Your task to perform on an android device: see sites visited before in the chrome app Image 0: 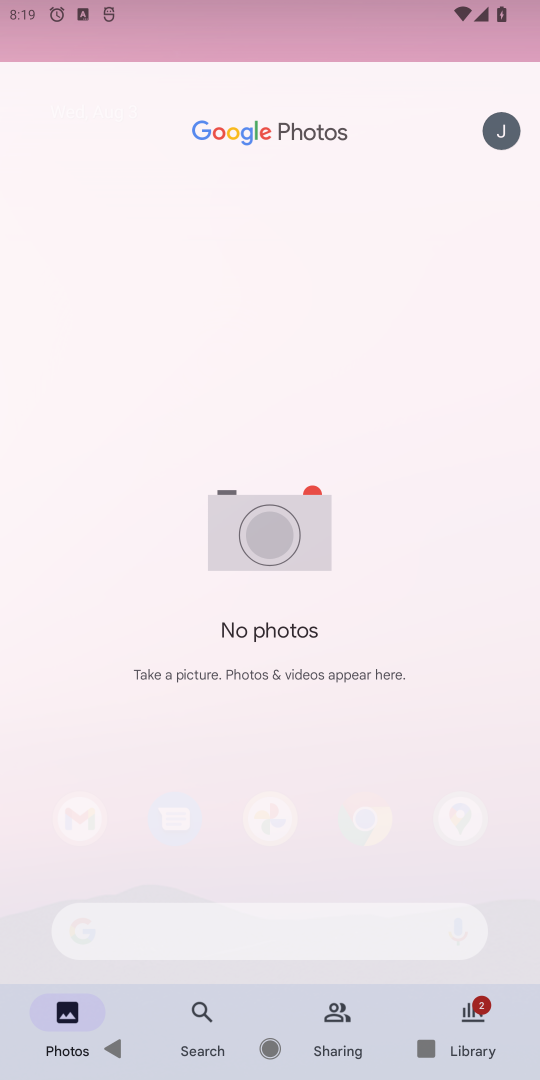
Step 0: press home button
Your task to perform on an android device: see sites visited before in the chrome app Image 1: 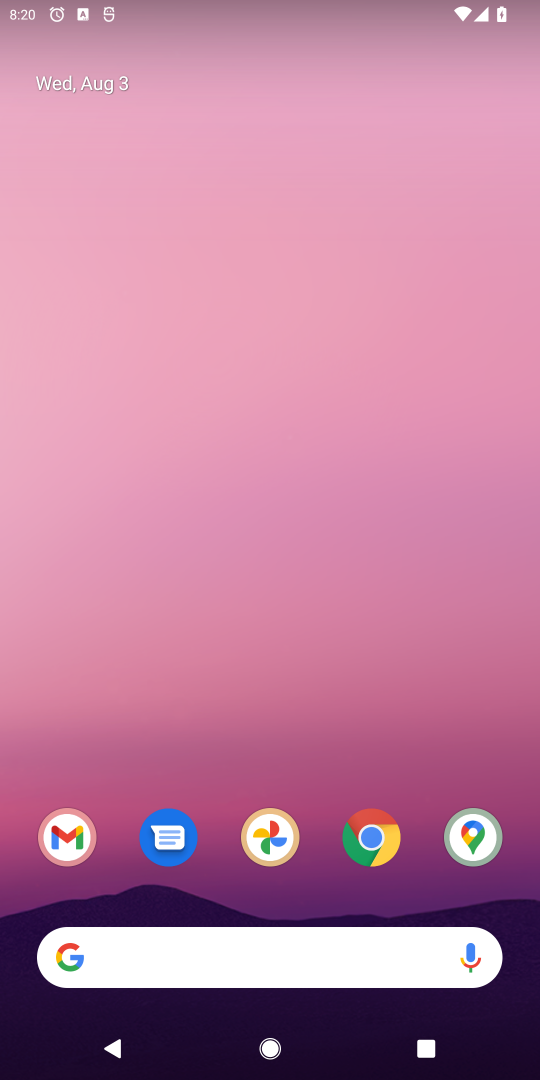
Step 1: click (380, 843)
Your task to perform on an android device: see sites visited before in the chrome app Image 2: 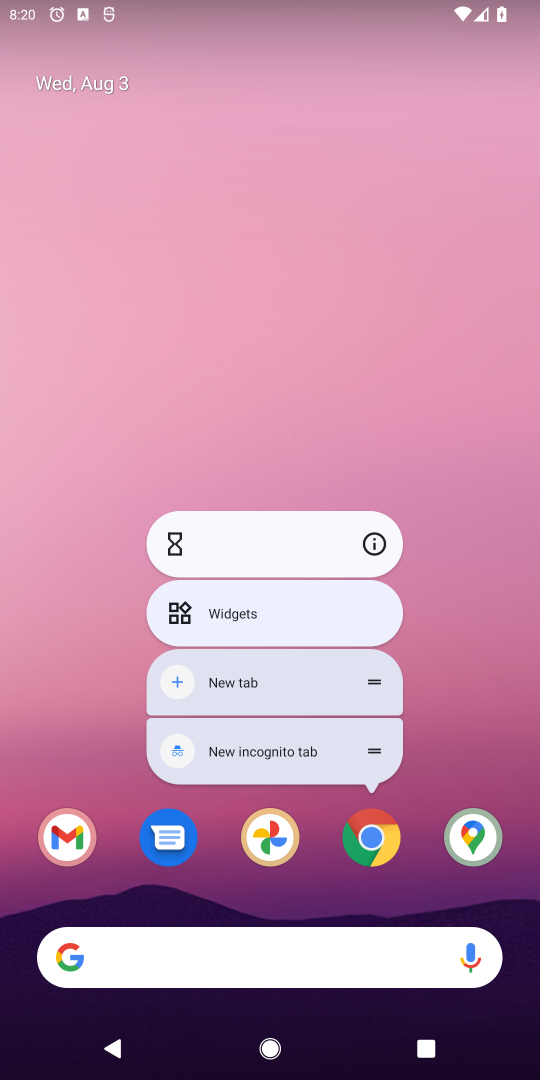
Step 2: click (369, 841)
Your task to perform on an android device: see sites visited before in the chrome app Image 3: 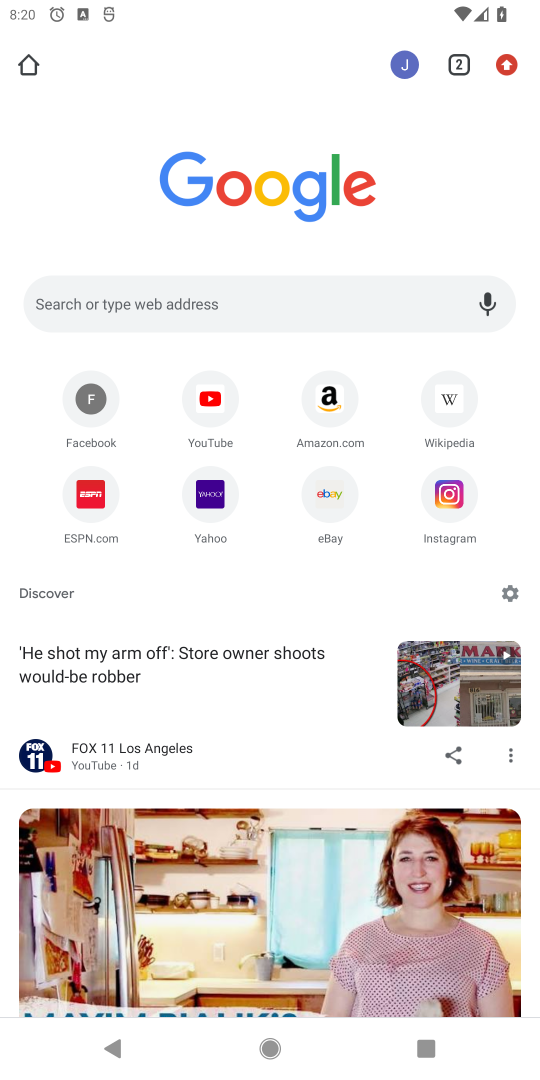
Step 3: task complete